Your task to perform on an android device: Open settings Image 0: 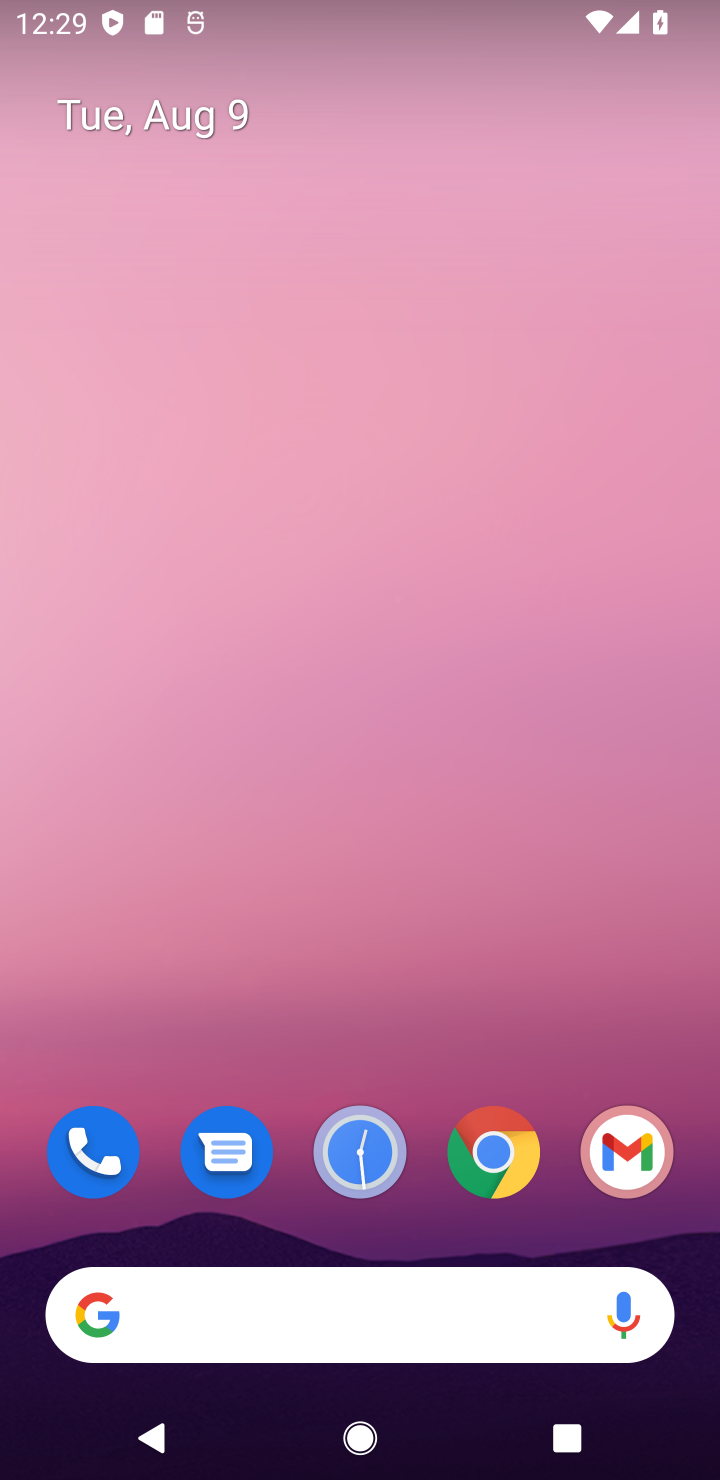
Step 0: drag from (581, 1080) to (467, 118)
Your task to perform on an android device: Open settings Image 1: 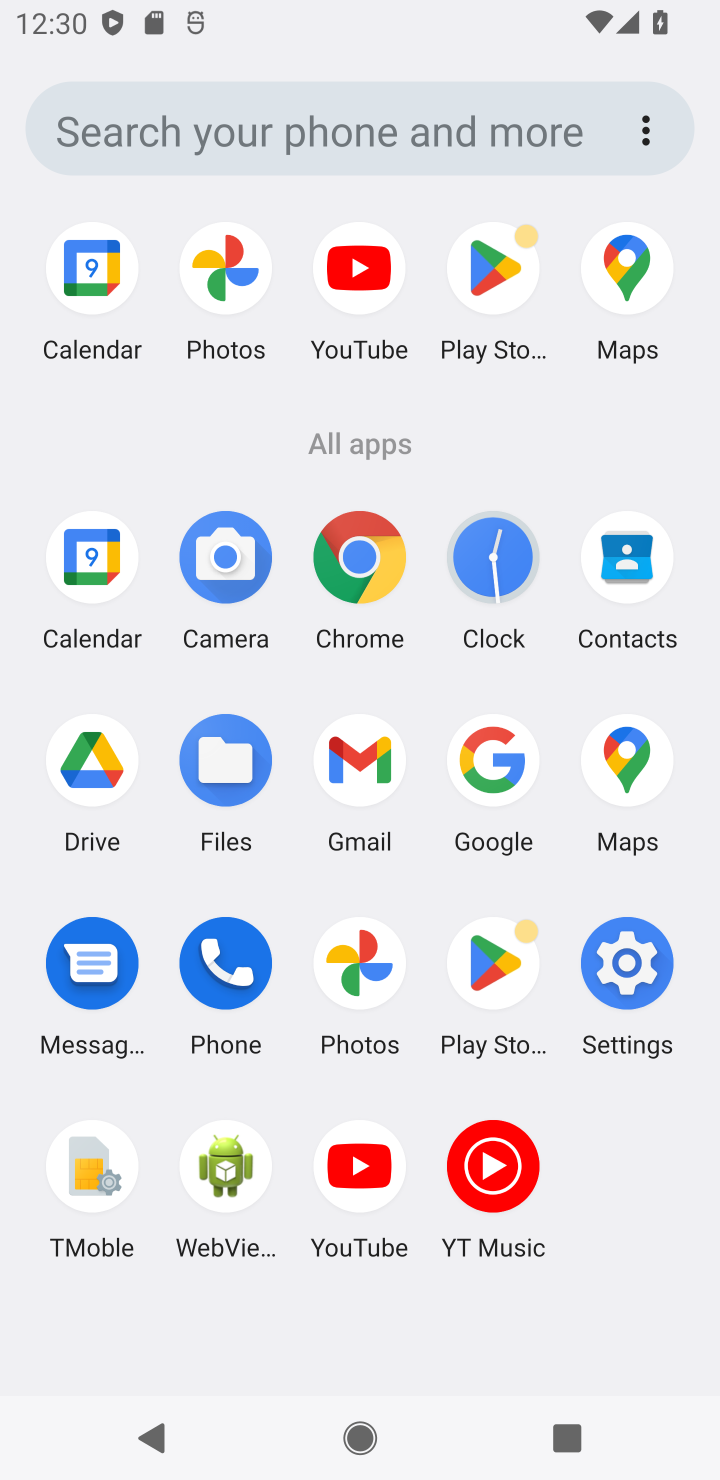
Step 1: click (633, 1003)
Your task to perform on an android device: Open settings Image 2: 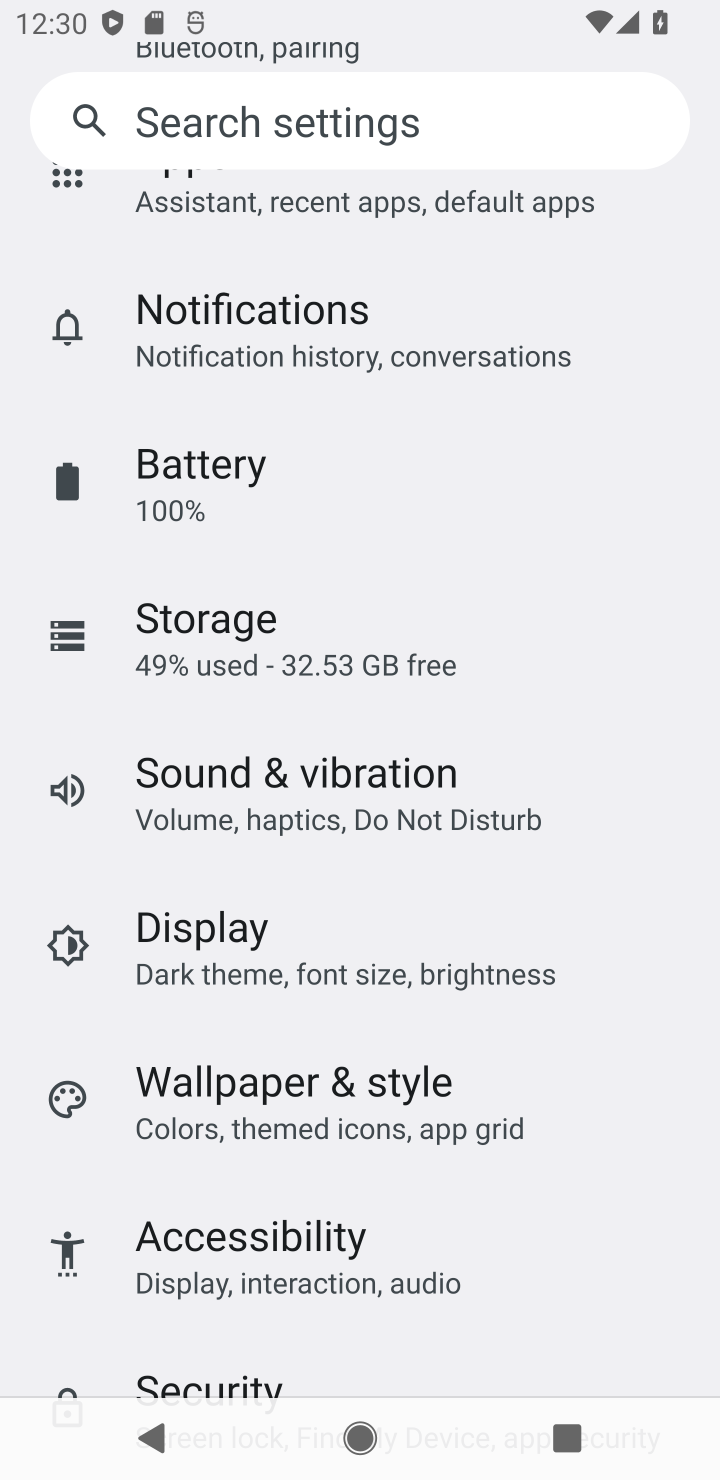
Step 2: task complete